Your task to perform on an android device: Clear all items from cart on target.com. Add "alienware aurora" to the cart on target.com, then select checkout. Image 0: 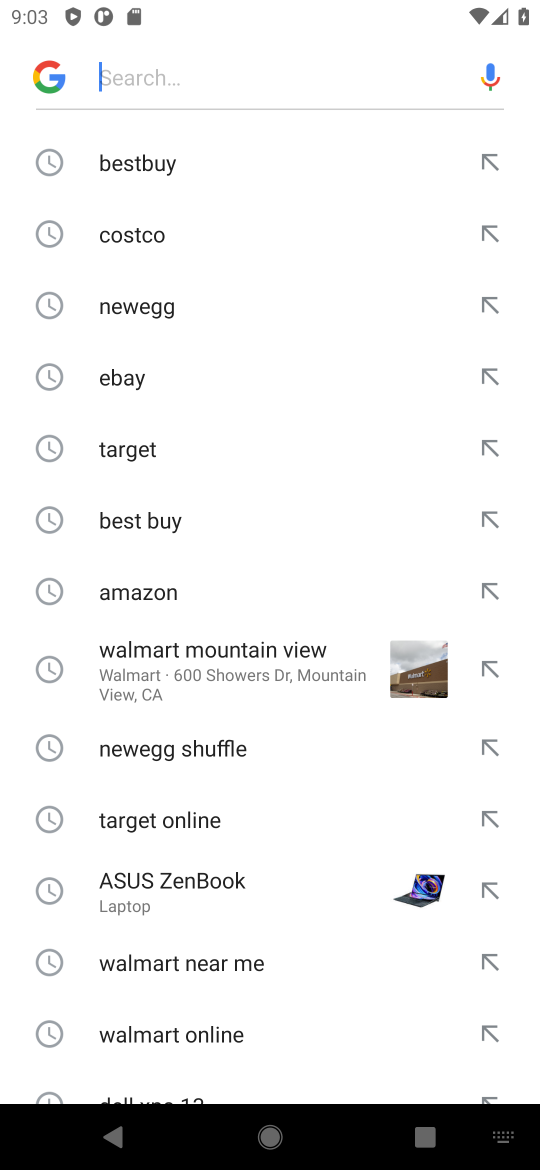
Step 0: click (265, 438)
Your task to perform on an android device: Clear all items from cart on target.com. Add "alienware aurora" to the cart on target.com, then select checkout. Image 1: 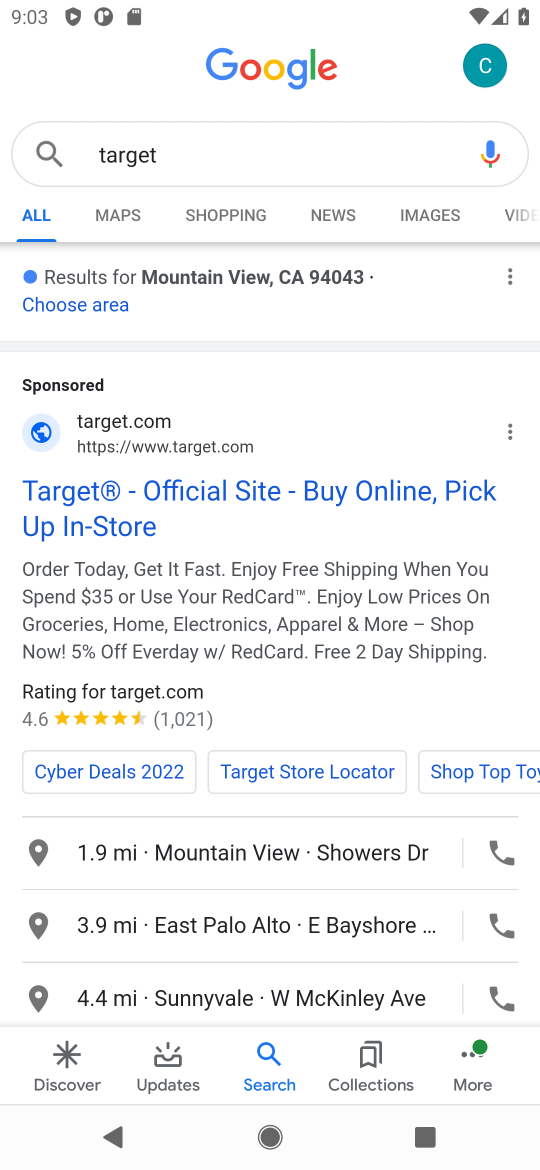
Step 1: click (242, 489)
Your task to perform on an android device: Clear all items from cart on target.com. Add "alienware aurora" to the cart on target.com, then select checkout. Image 2: 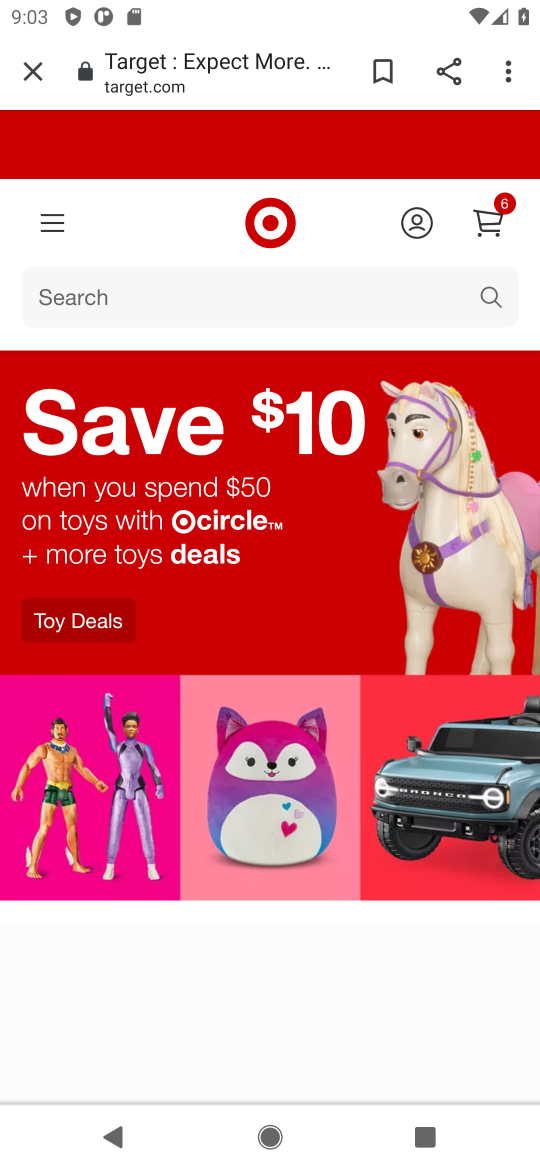
Step 2: click (100, 313)
Your task to perform on an android device: Clear all items from cart on target.com. Add "alienware aurora" to the cart on target.com, then select checkout. Image 3: 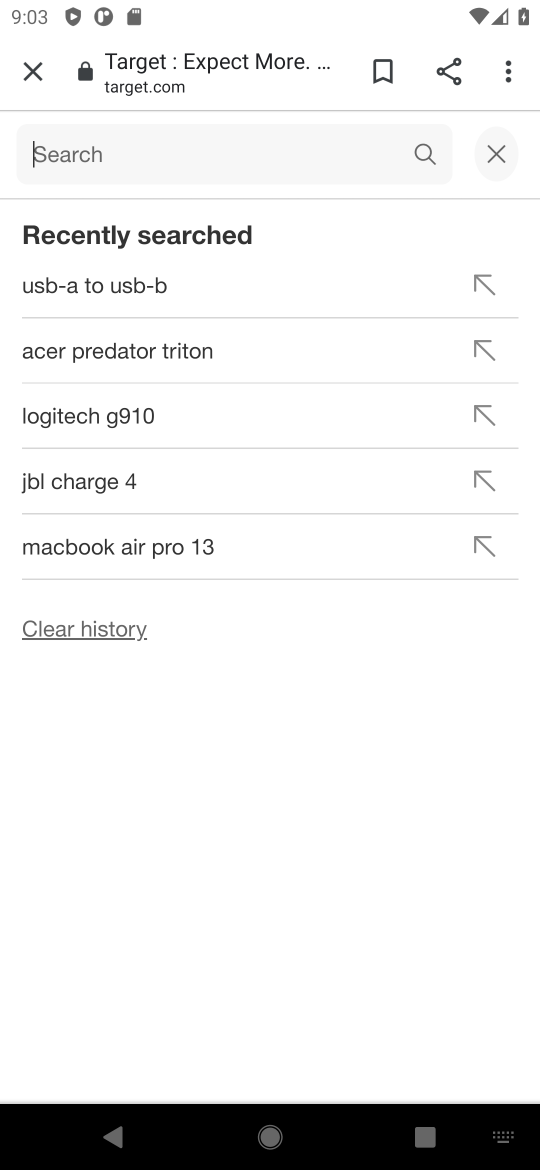
Step 3: type "alienware auro"
Your task to perform on an android device: Clear all items from cart on target.com. Add "alienware aurora" to the cart on target.com, then select checkout. Image 4: 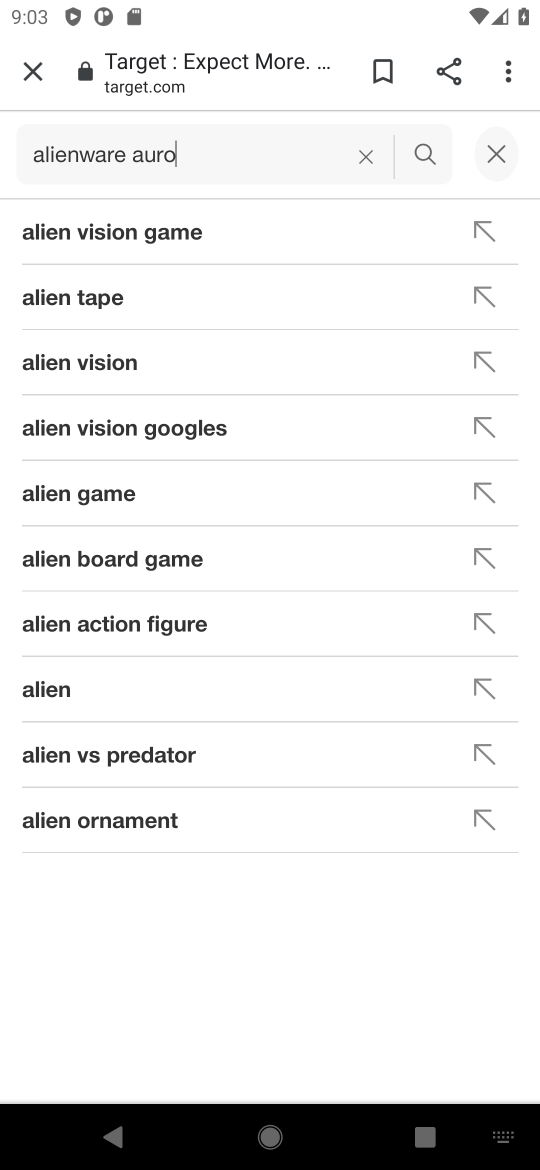
Step 4: click (423, 159)
Your task to perform on an android device: Clear all items from cart on target.com. Add "alienware aurora" to the cart on target.com, then select checkout. Image 5: 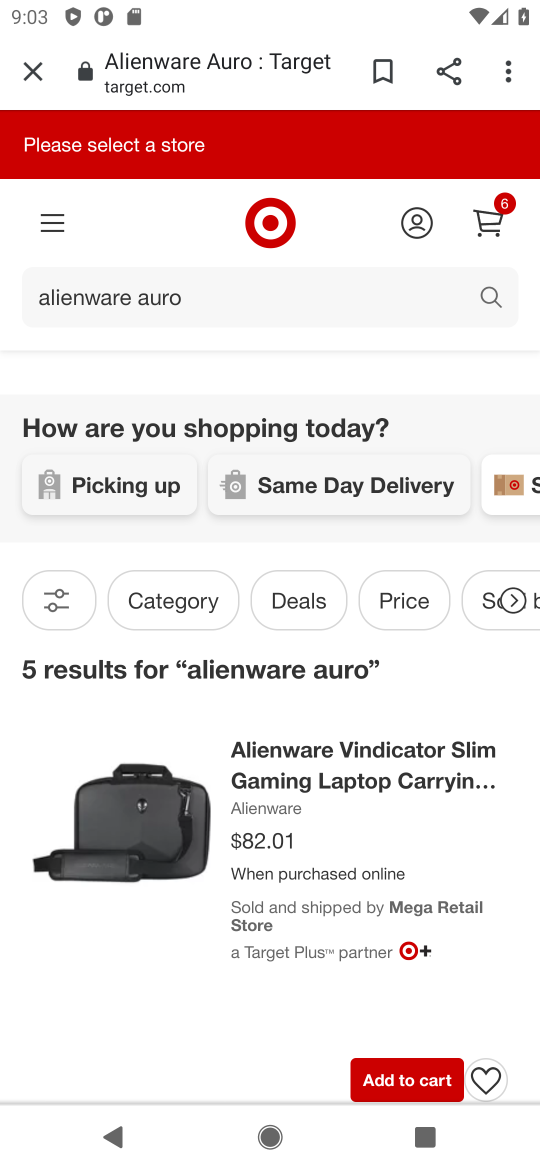
Step 5: click (399, 1083)
Your task to perform on an android device: Clear all items from cart on target.com. Add "alienware aurora" to the cart on target.com, then select checkout. Image 6: 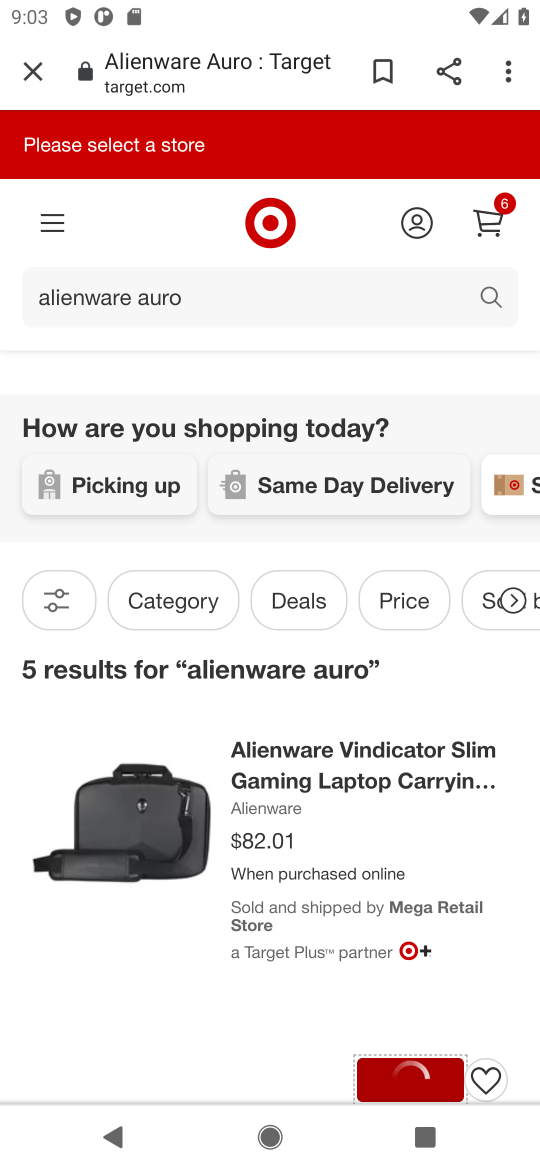
Step 6: task complete